Your task to perform on an android device: Go to internet settings Image 0: 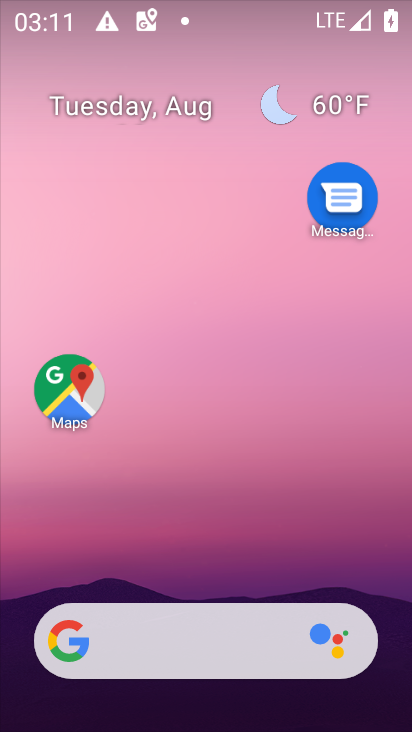
Step 0: drag from (193, 569) to (273, 6)
Your task to perform on an android device: Go to internet settings Image 1: 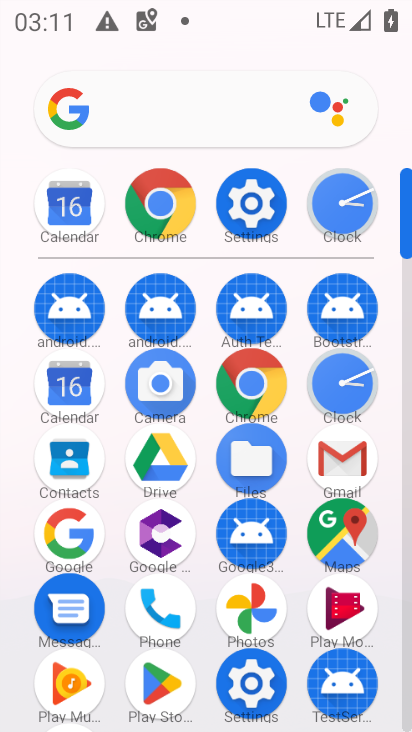
Step 1: click (256, 227)
Your task to perform on an android device: Go to internet settings Image 2: 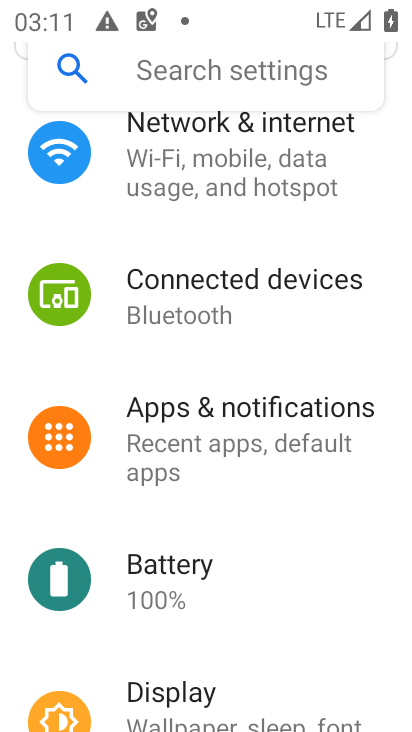
Step 2: click (196, 170)
Your task to perform on an android device: Go to internet settings Image 3: 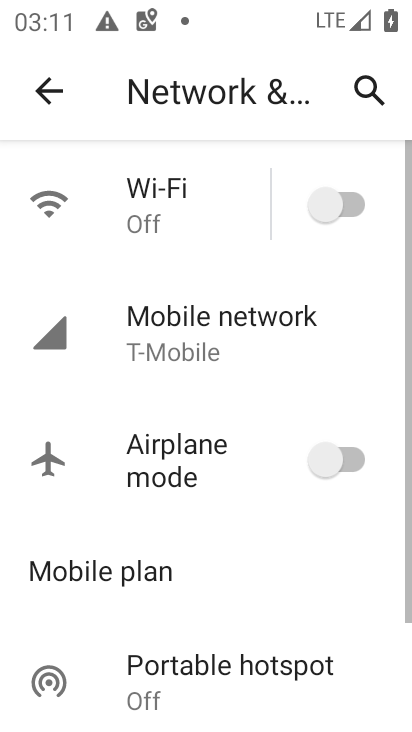
Step 3: task complete